Your task to perform on an android device: Open the web browser Image 0: 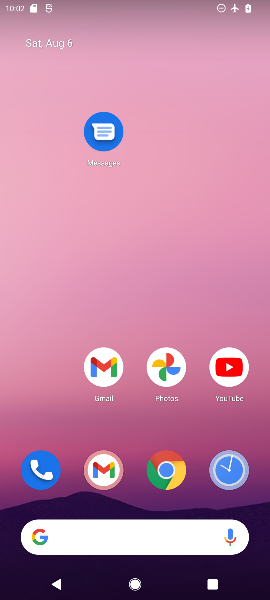
Step 0: drag from (97, 367) to (105, 29)
Your task to perform on an android device: Open the web browser Image 1: 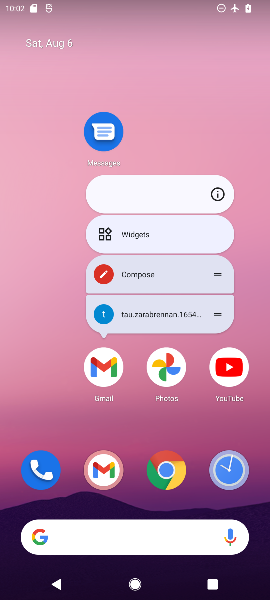
Step 1: click (200, 127)
Your task to perform on an android device: Open the web browser Image 2: 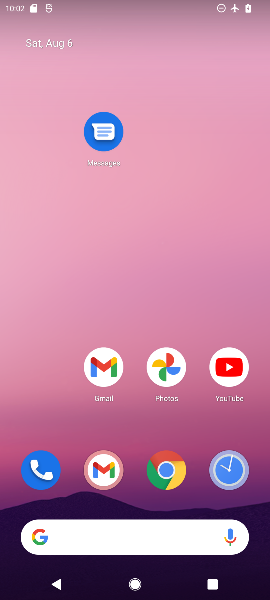
Step 2: click (172, 470)
Your task to perform on an android device: Open the web browser Image 3: 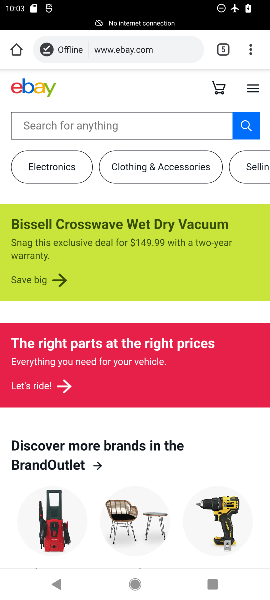
Step 3: task complete